Your task to perform on an android device: When is my next appointment? Image 0: 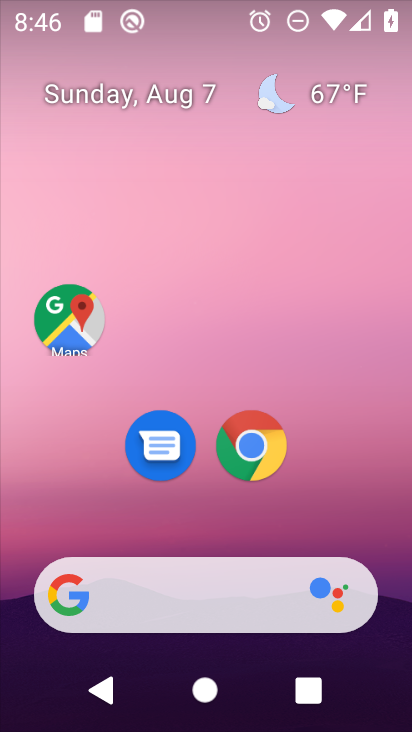
Step 0: drag from (203, 537) to (238, 77)
Your task to perform on an android device: When is my next appointment? Image 1: 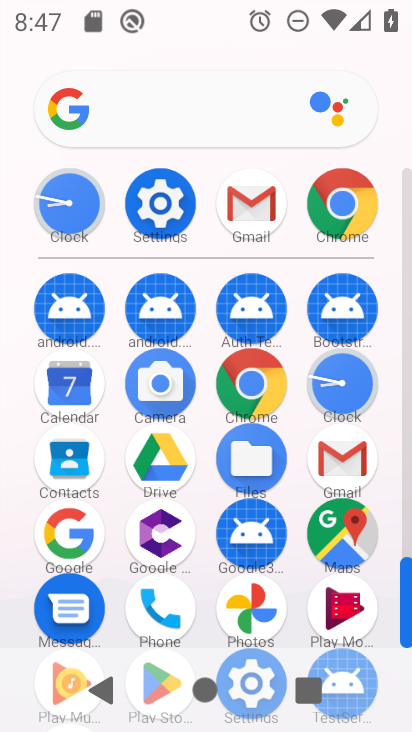
Step 1: click (65, 382)
Your task to perform on an android device: When is my next appointment? Image 2: 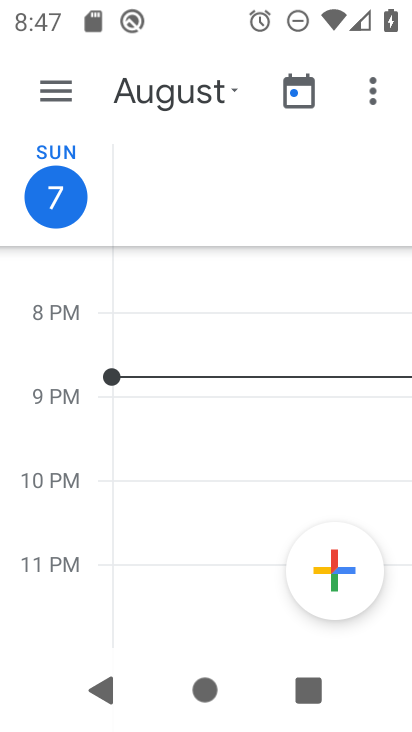
Step 2: click (226, 85)
Your task to perform on an android device: When is my next appointment? Image 3: 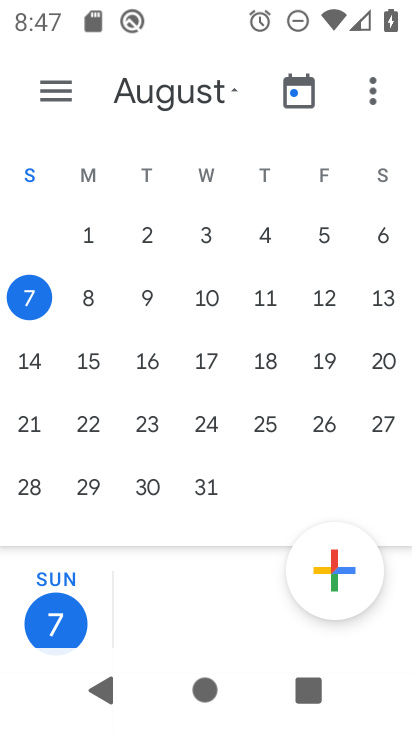
Step 3: click (61, 92)
Your task to perform on an android device: When is my next appointment? Image 4: 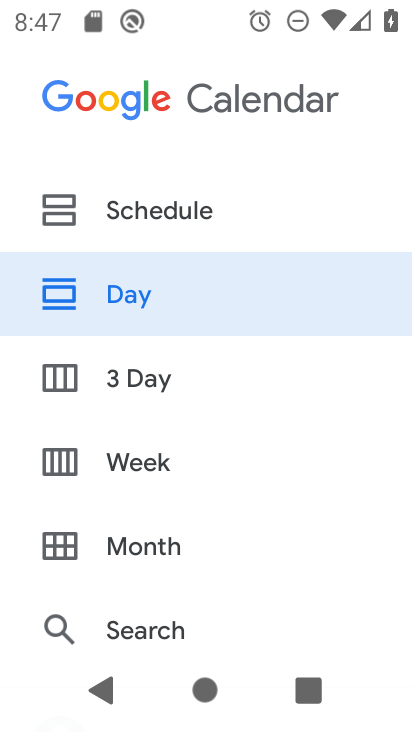
Step 4: click (92, 458)
Your task to perform on an android device: When is my next appointment? Image 5: 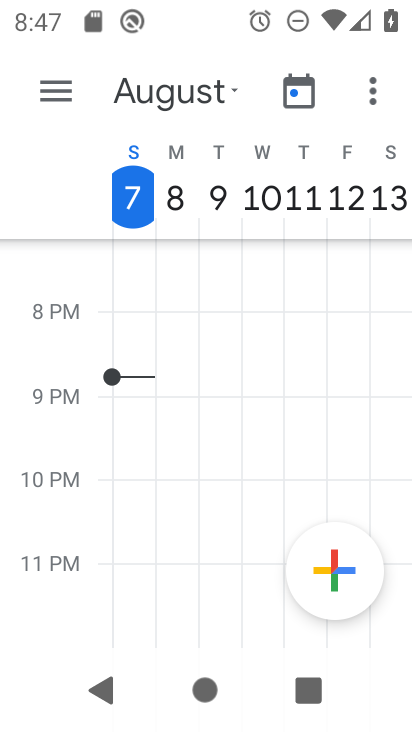
Step 5: task complete